Your task to perform on an android device: turn smart compose on in the gmail app Image 0: 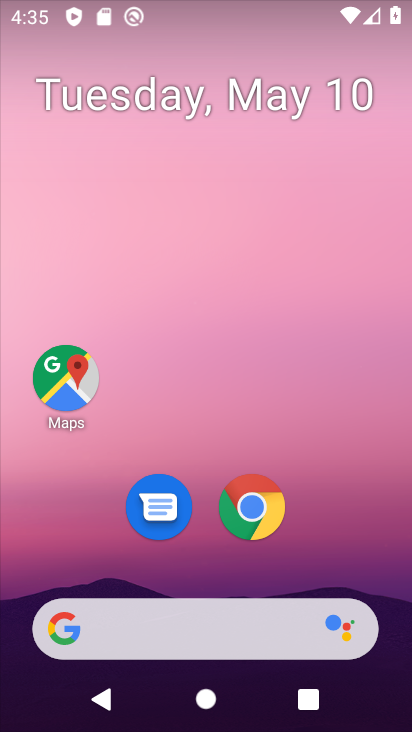
Step 0: drag from (201, 567) to (214, 63)
Your task to perform on an android device: turn smart compose on in the gmail app Image 1: 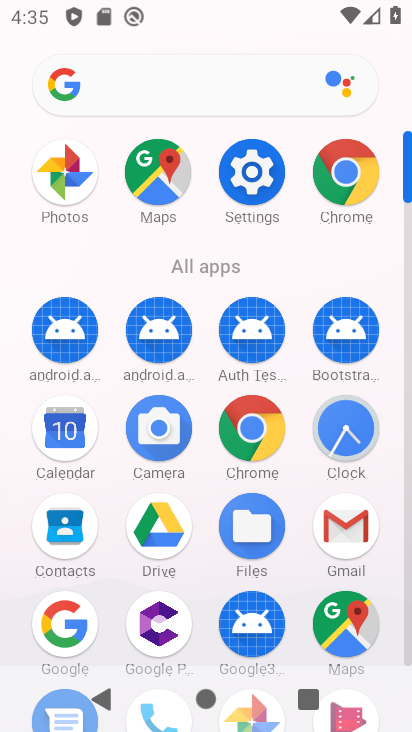
Step 1: click (347, 524)
Your task to perform on an android device: turn smart compose on in the gmail app Image 2: 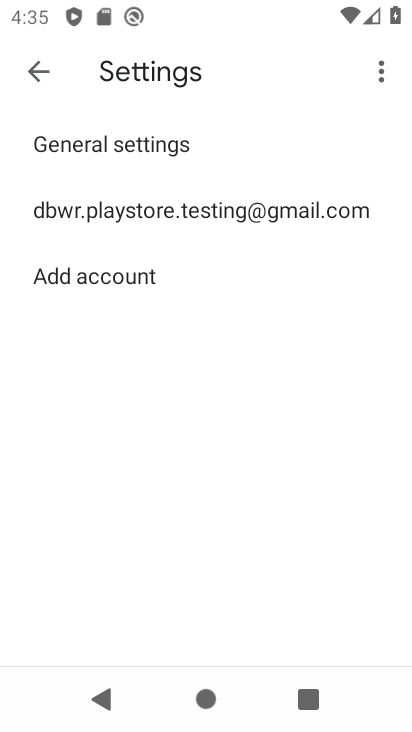
Step 2: click (117, 223)
Your task to perform on an android device: turn smart compose on in the gmail app Image 3: 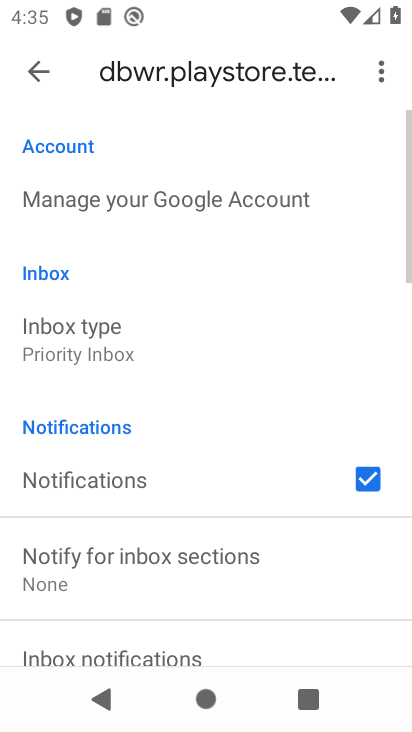
Step 3: task complete